Your task to perform on an android device: turn smart compose on in the gmail app Image 0: 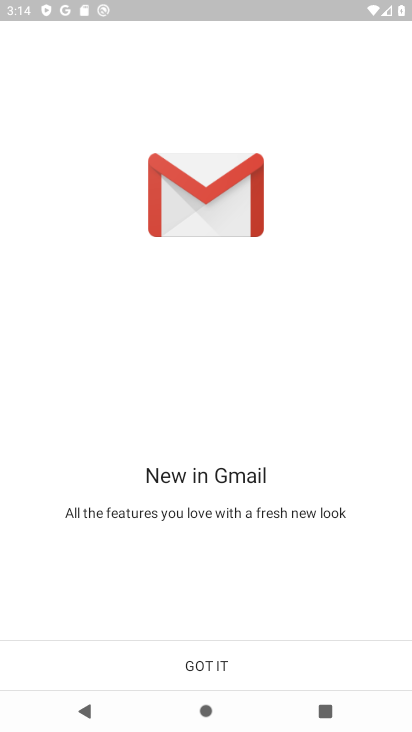
Step 0: click (242, 661)
Your task to perform on an android device: turn smart compose on in the gmail app Image 1: 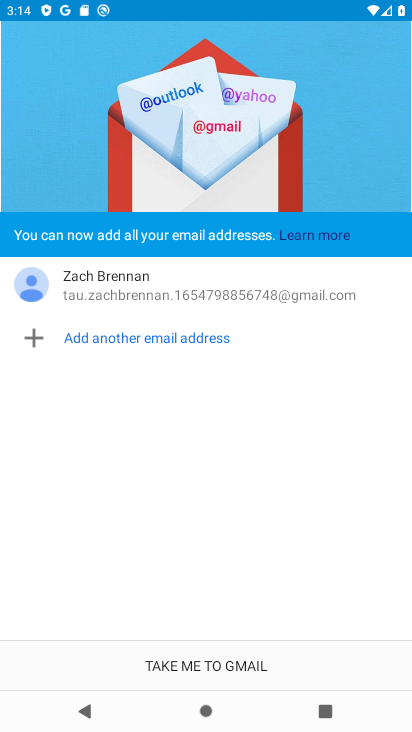
Step 1: click (224, 663)
Your task to perform on an android device: turn smart compose on in the gmail app Image 2: 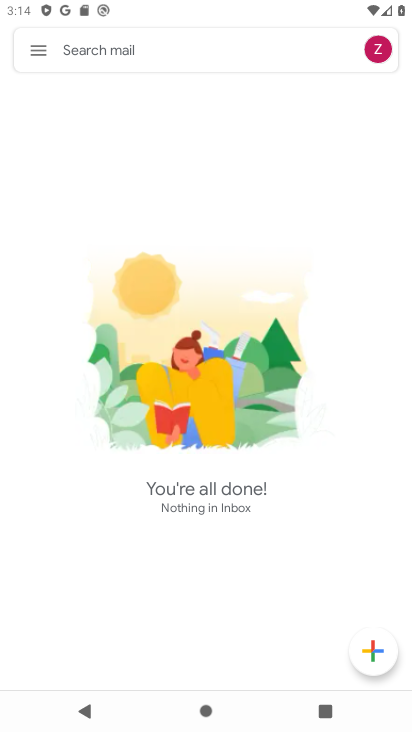
Step 2: click (43, 58)
Your task to perform on an android device: turn smart compose on in the gmail app Image 3: 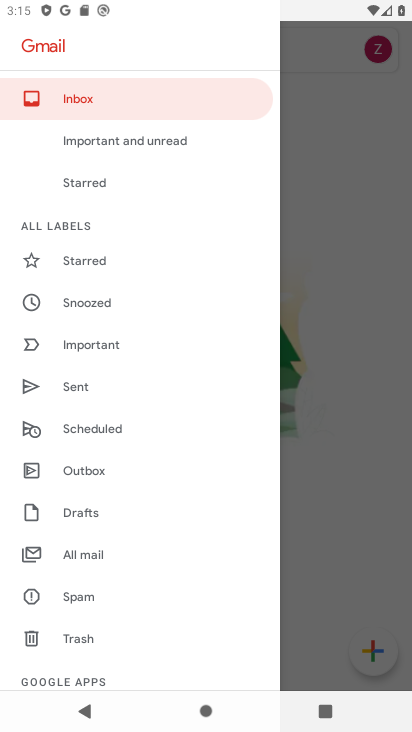
Step 3: drag from (139, 646) to (150, 143)
Your task to perform on an android device: turn smart compose on in the gmail app Image 4: 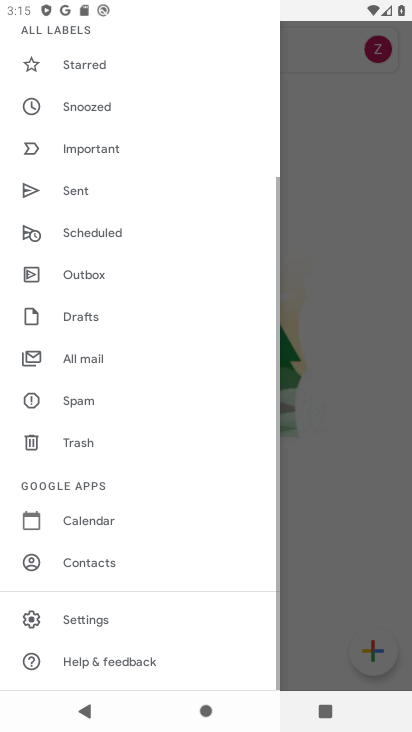
Step 4: click (128, 612)
Your task to perform on an android device: turn smart compose on in the gmail app Image 5: 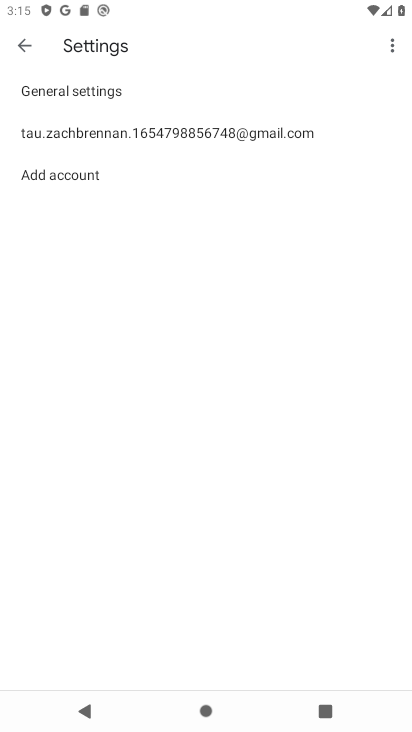
Step 5: click (227, 143)
Your task to perform on an android device: turn smart compose on in the gmail app Image 6: 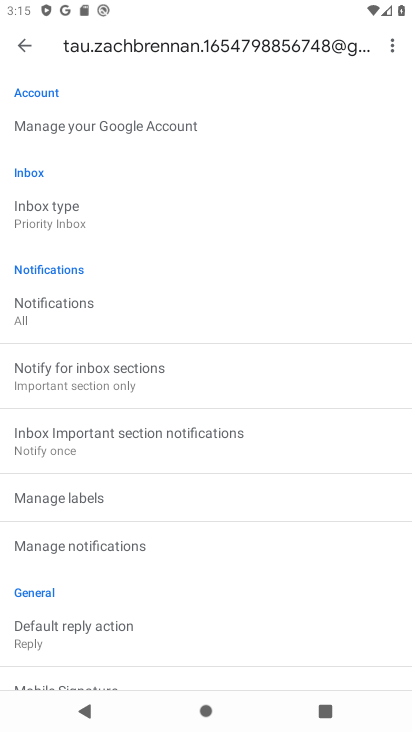
Step 6: task complete